Your task to perform on an android device: Open Google Chrome Image 0: 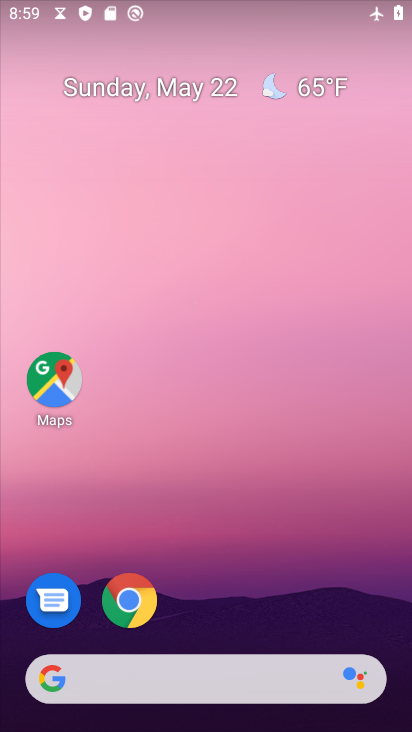
Step 0: click (133, 621)
Your task to perform on an android device: Open Google Chrome Image 1: 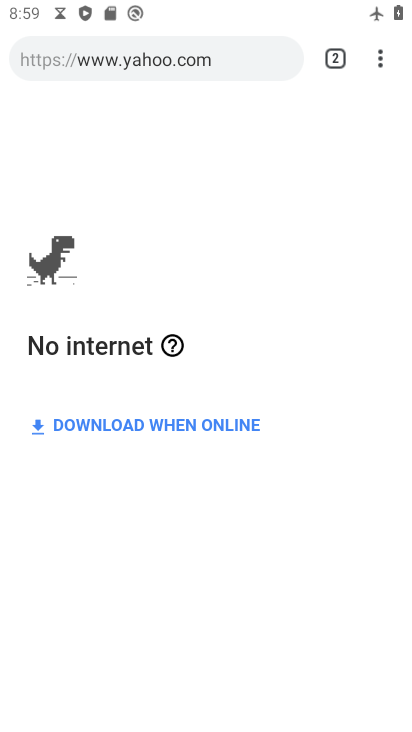
Step 1: task complete